Your task to perform on an android device: Open Chrome and go to settings Image 0: 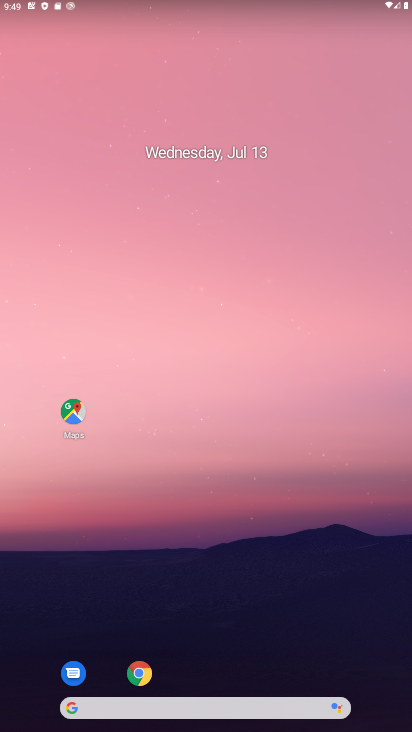
Step 0: click (141, 673)
Your task to perform on an android device: Open Chrome and go to settings Image 1: 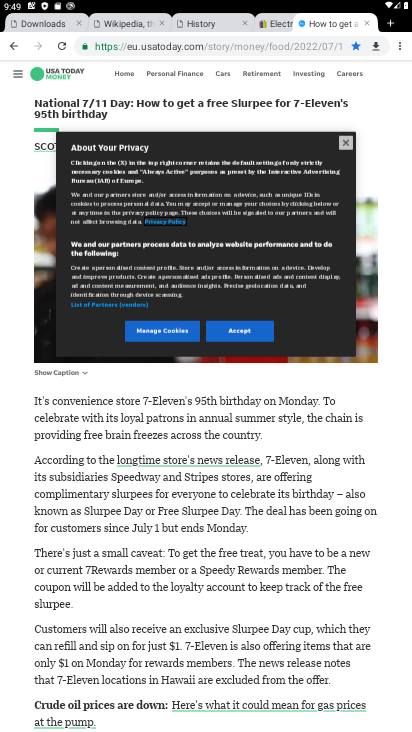
Step 1: click (403, 41)
Your task to perform on an android device: Open Chrome and go to settings Image 2: 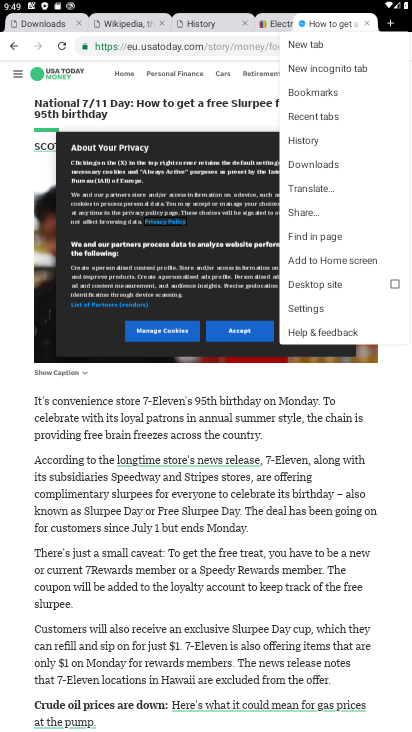
Step 2: click (304, 311)
Your task to perform on an android device: Open Chrome and go to settings Image 3: 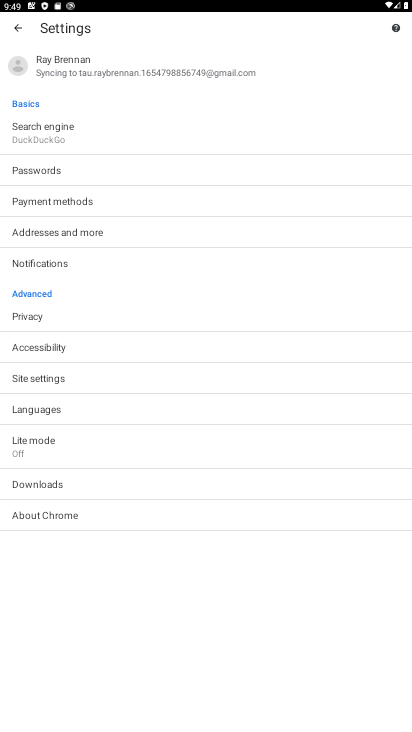
Step 3: task complete